Your task to perform on an android device: Open the Play Movies app and select the watchlist tab. Image 0: 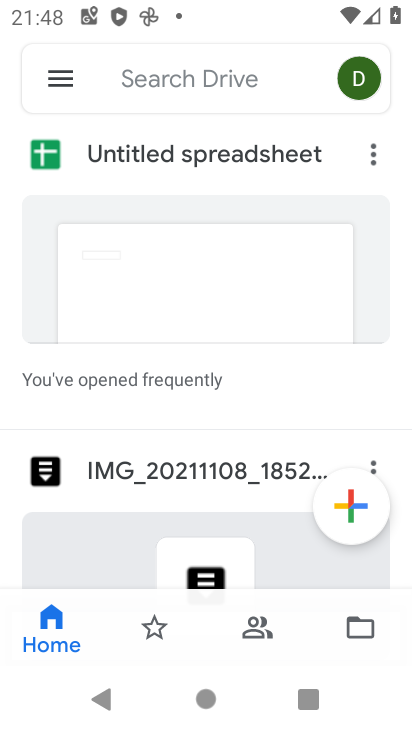
Step 0: press home button
Your task to perform on an android device: Open the Play Movies app and select the watchlist tab. Image 1: 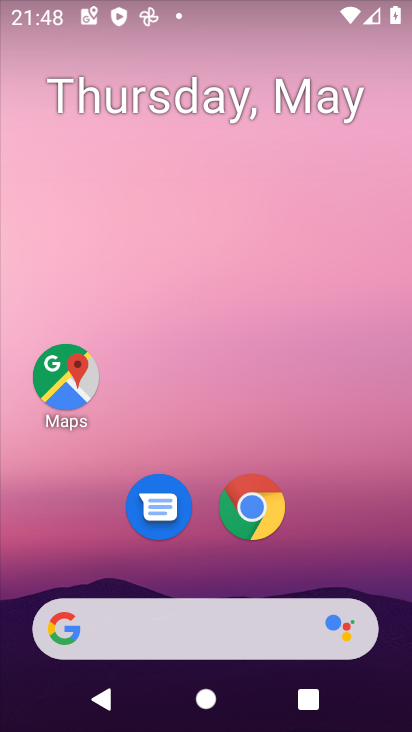
Step 1: drag from (256, 661) to (256, 289)
Your task to perform on an android device: Open the Play Movies app and select the watchlist tab. Image 2: 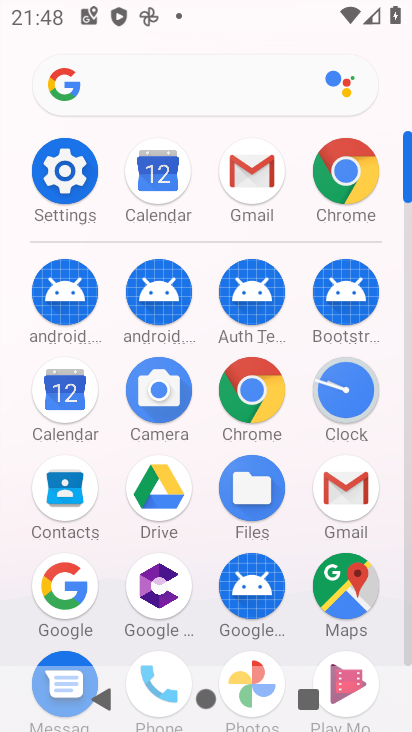
Step 2: click (356, 652)
Your task to perform on an android device: Open the Play Movies app and select the watchlist tab. Image 3: 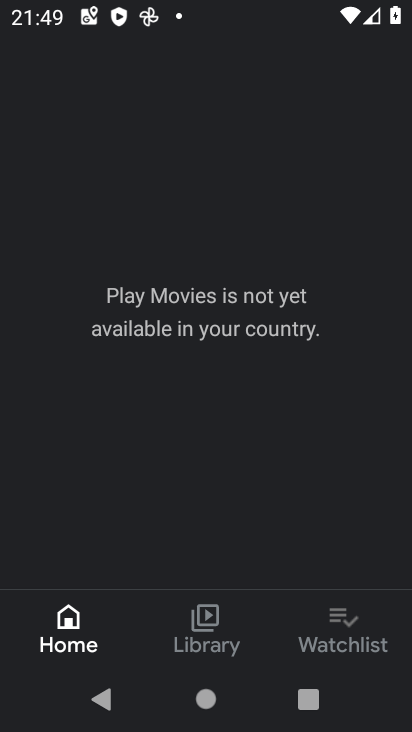
Step 3: click (356, 652)
Your task to perform on an android device: Open the Play Movies app and select the watchlist tab. Image 4: 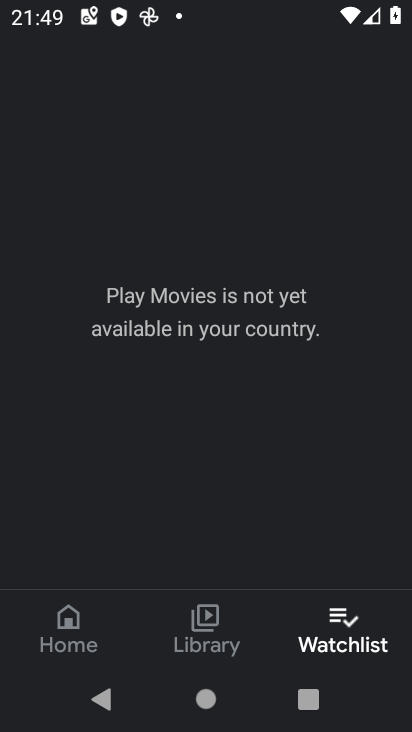
Step 4: task complete